Your task to perform on an android device: change keyboard looks Image 0: 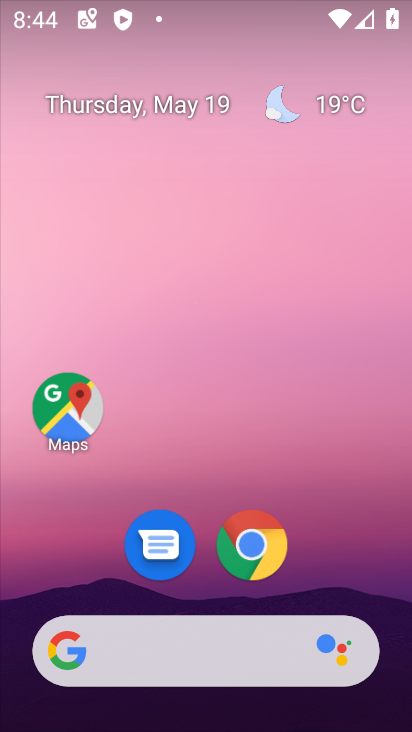
Step 0: drag from (333, 546) to (266, 151)
Your task to perform on an android device: change keyboard looks Image 1: 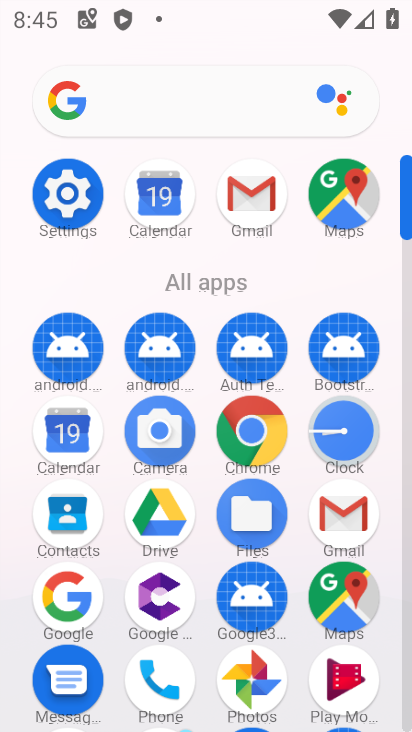
Step 1: click (85, 225)
Your task to perform on an android device: change keyboard looks Image 2: 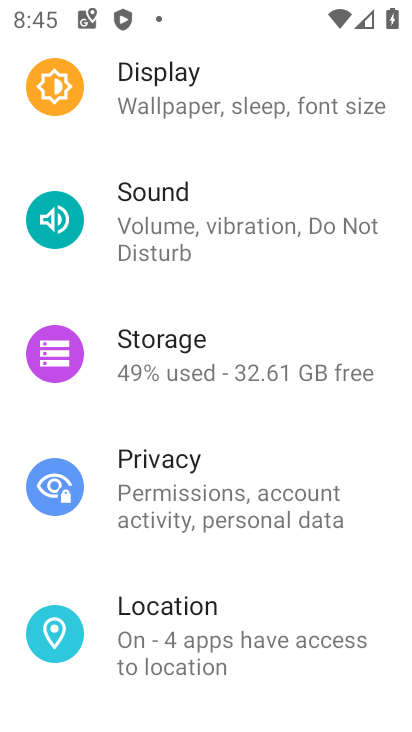
Step 2: drag from (209, 670) to (256, 328)
Your task to perform on an android device: change keyboard looks Image 3: 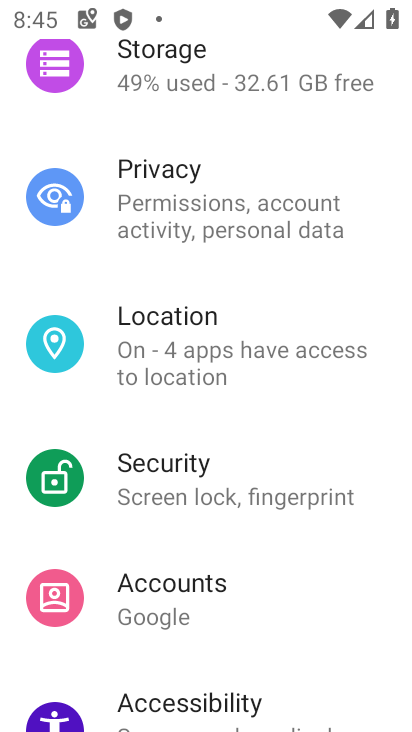
Step 3: drag from (212, 634) to (221, 314)
Your task to perform on an android device: change keyboard looks Image 4: 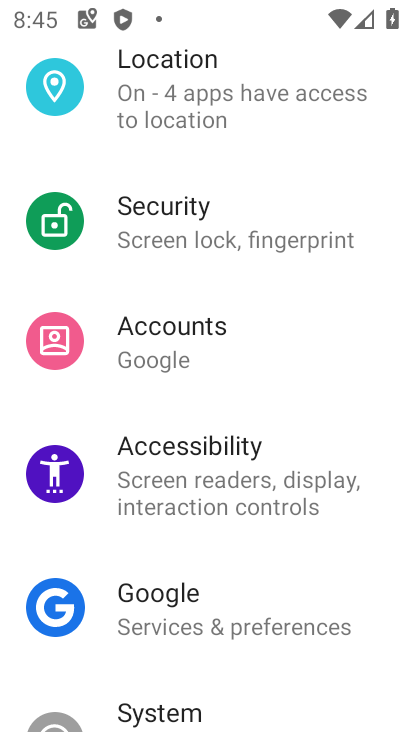
Step 4: click (165, 693)
Your task to perform on an android device: change keyboard looks Image 5: 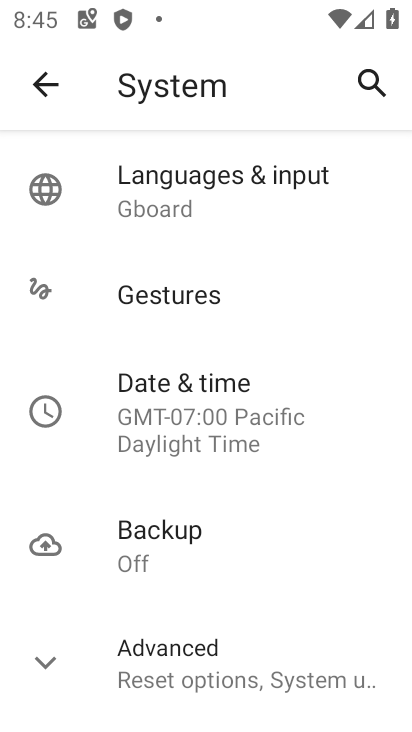
Step 5: click (220, 197)
Your task to perform on an android device: change keyboard looks Image 6: 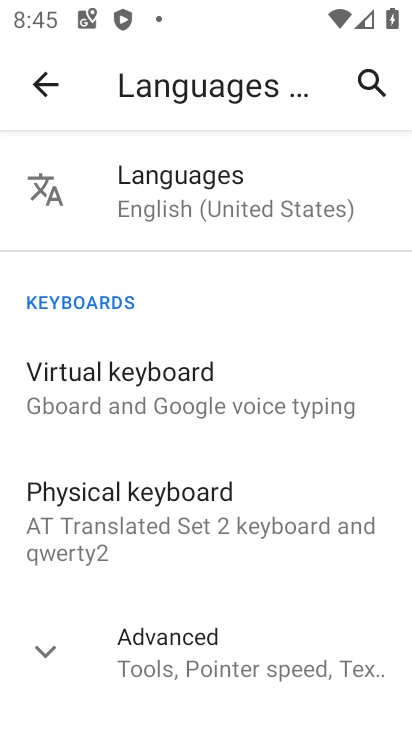
Step 6: click (171, 364)
Your task to perform on an android device: change keyboard looks Image 7: 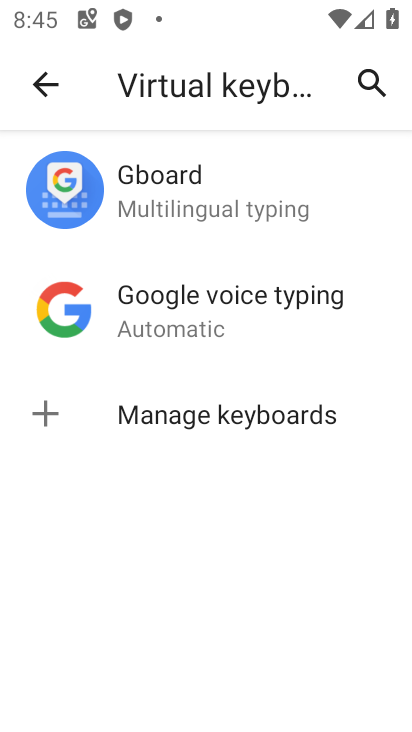
Step 7: click (200, 181)
Your task to perform on an android device: change keyboard looks Image 8: 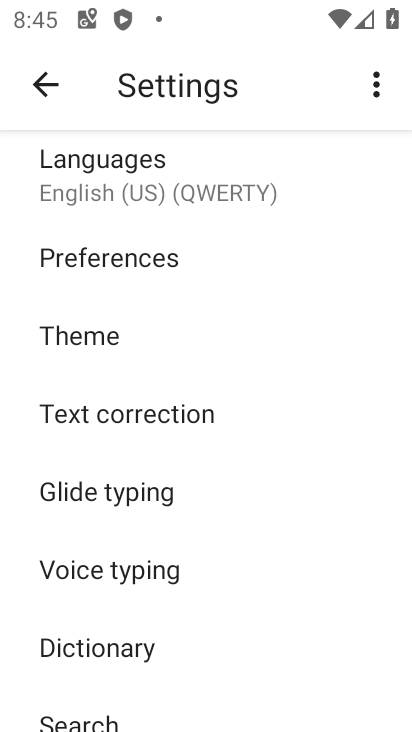
Step 8: click (121, 350)
Your task to perform on an android device: change keyboard looks Image 9: 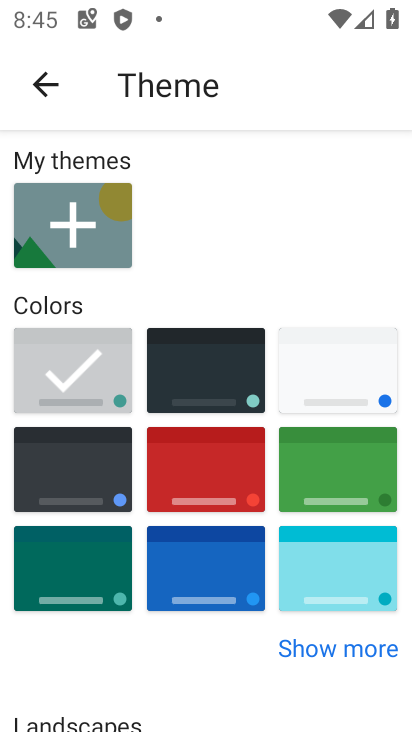
Step 9: click (175, 348)
Your task to perform on an android device: change keyboard looks Image 10: 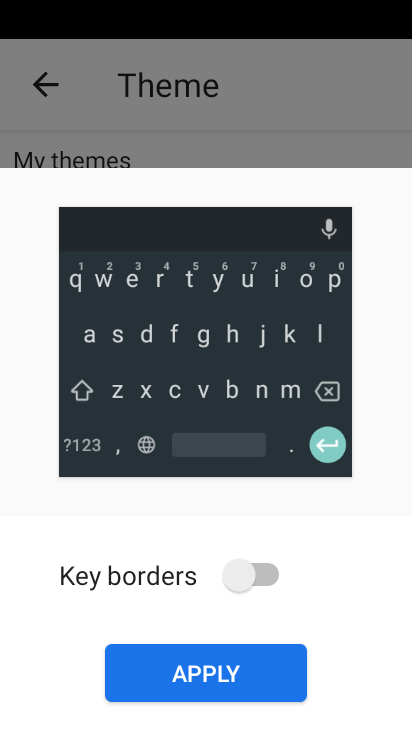
Step 10: click (239, 683)
Your task to perform on an android device: change keyboard looks Image 11: 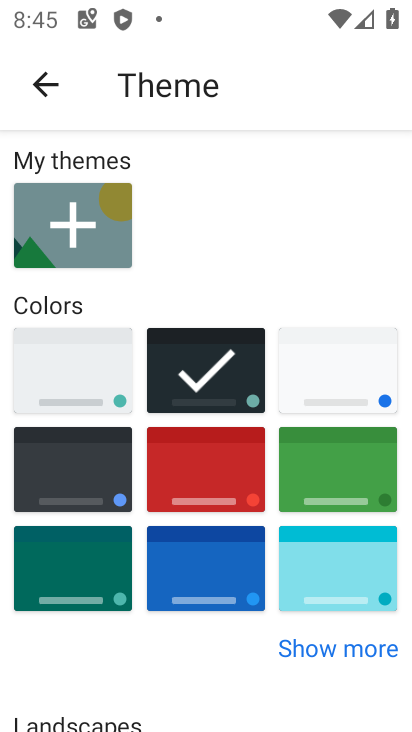
Step 11: task complete